Your task to perform on an android device: toggle wifi Image 0: 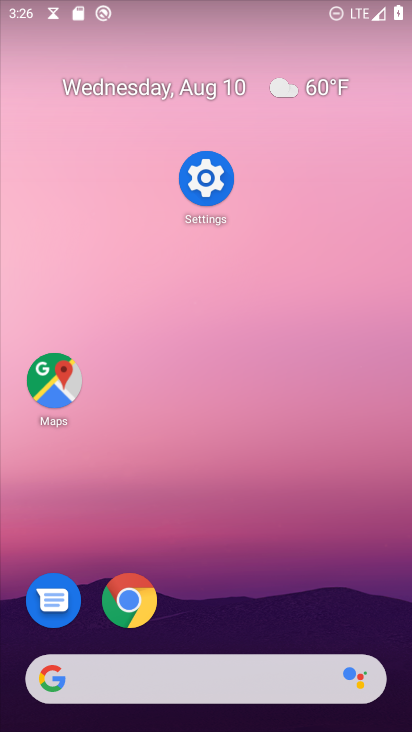
Step 0: press home button
Your task to perform on an android device: toggle wifi Image 1: 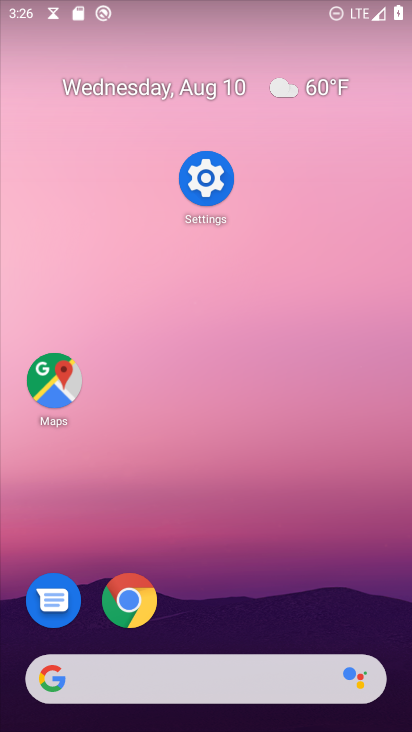
Step 1: drag from (160, 6) to (265, 692)
Your task to perform on an android device: toggle wifi Image 2: 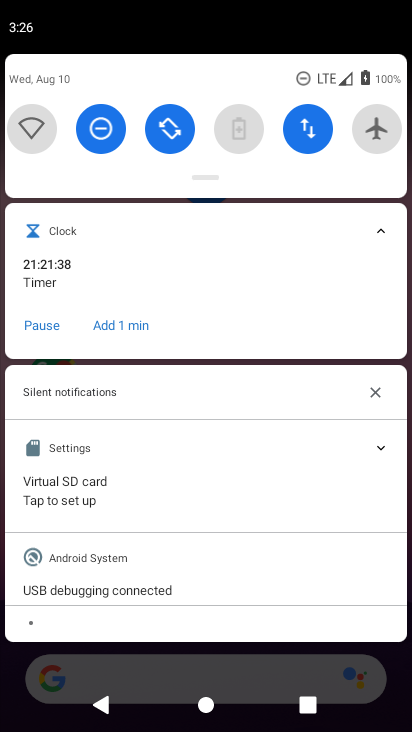
Step 2: click (30, 134)
Your task to perform on an android device: toggle wifi Image 3: 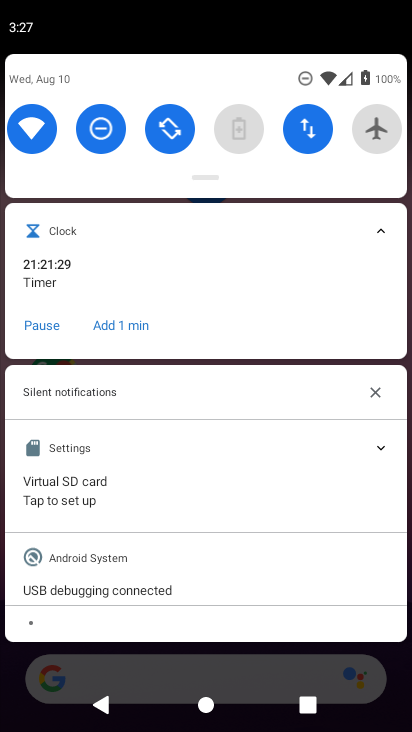
Step 3: task complete